Your task to perform on an android device: Open display settings Image 0: 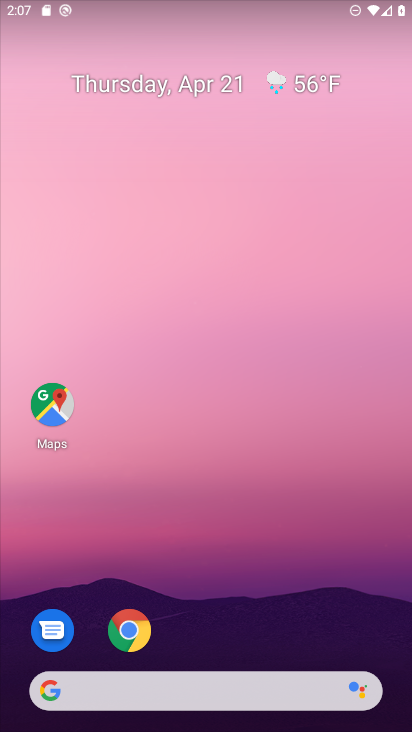
Step 0: drag from (223, 683) to (159, 227)
Your task to perform on an android device: Open display settings Image 1: 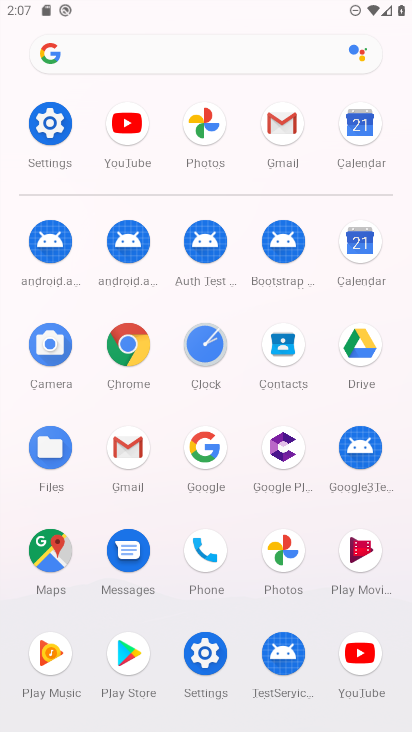
Step 1: click (205, 666)
Your task to perform on an android device: Open display settings Image 2: 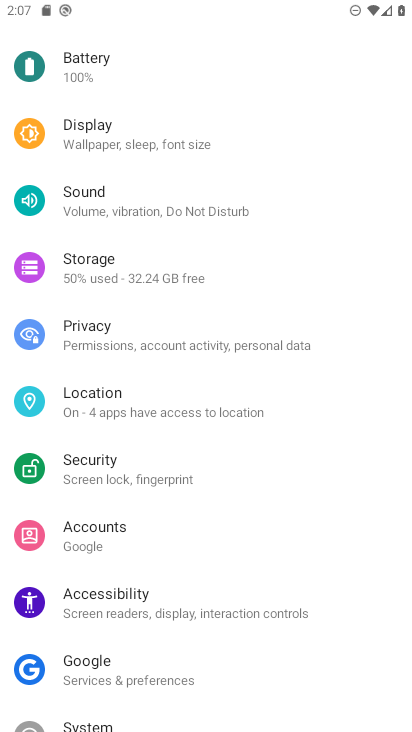
Step 2: click (124, 136)
Your task to perform on an android device: Open display settings Image 3: 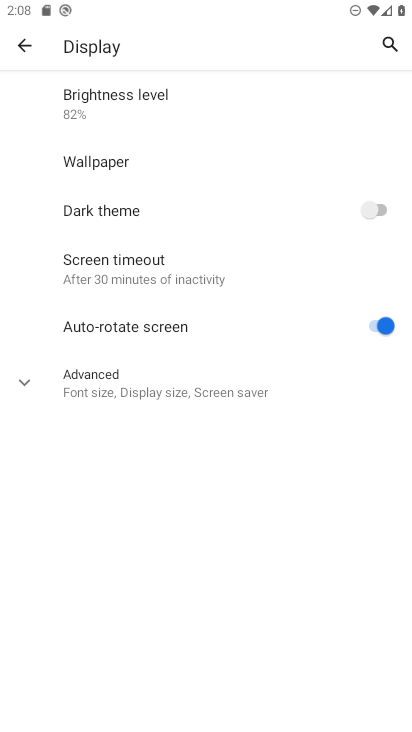
Step 3: task complete